Your task to perform on an android device: turn off notifications settings in the gmail app Image 0: 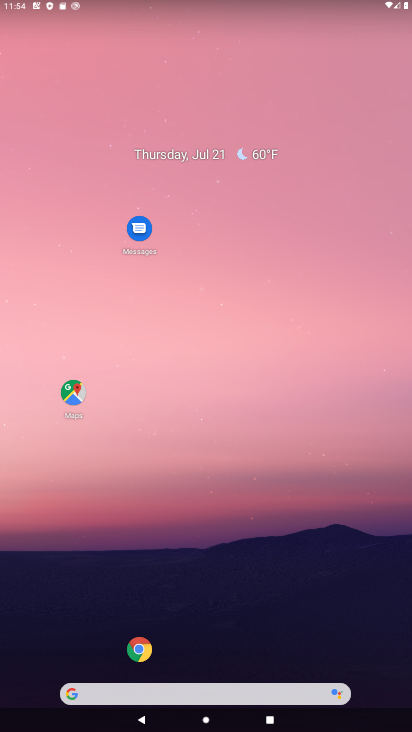
Step 0: drag from (20, 686) to (209, 201)
Your task to perform on an android device: turn off notifications settings in the gmail app Image 1: 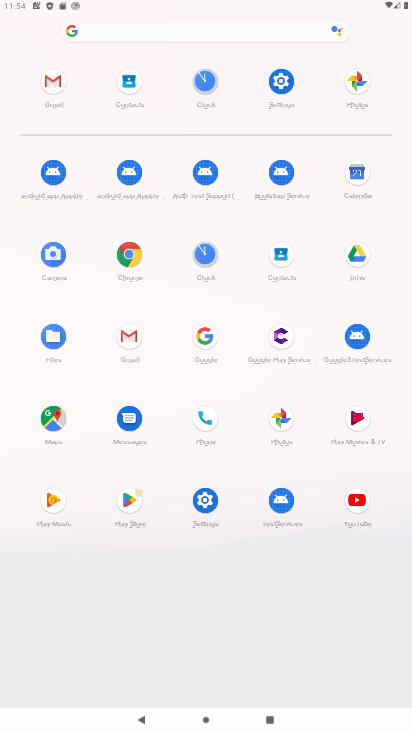
Step 1: click (126, 342)
Your task to perform on an android device: turn off notifications settings in the gmail app Image 2: 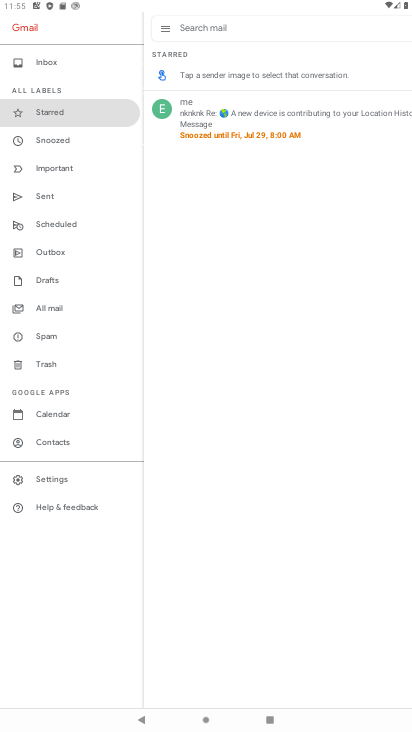
Step 2: click (35, 483)
Your task to perform on an android device: turn off notifications settings in the gmail app Image 3: 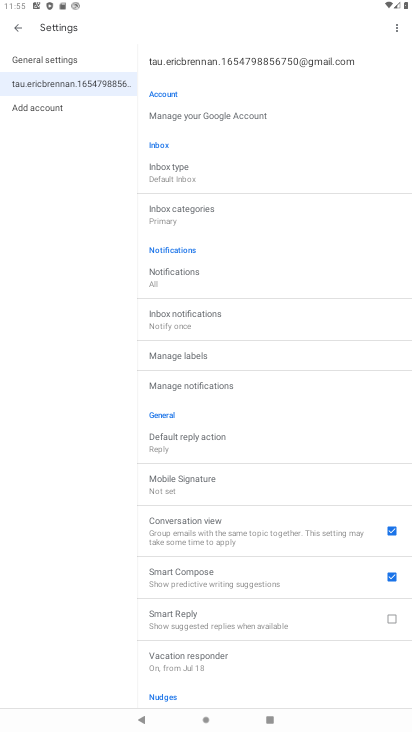
Step 3: click (77, 109)
Your task to perform on an android device: turn off notifications settings in the gmail app Image 4: 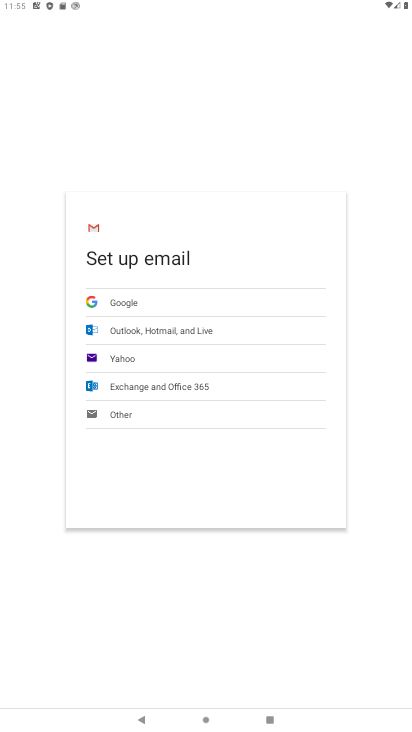
Step 4: task complete